Your task to perform on an android device: Add "razer blade" to the cart on ebay.com Image 0: 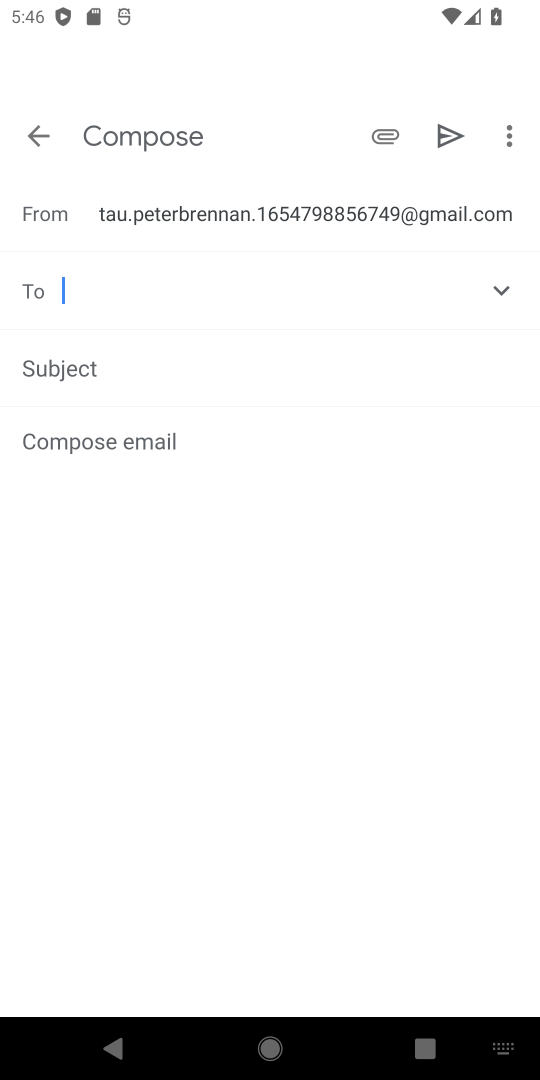
Step 0: press home button
Your task to perform on an android device: Add "razer blade" to the cart on ebay.com Image 1: 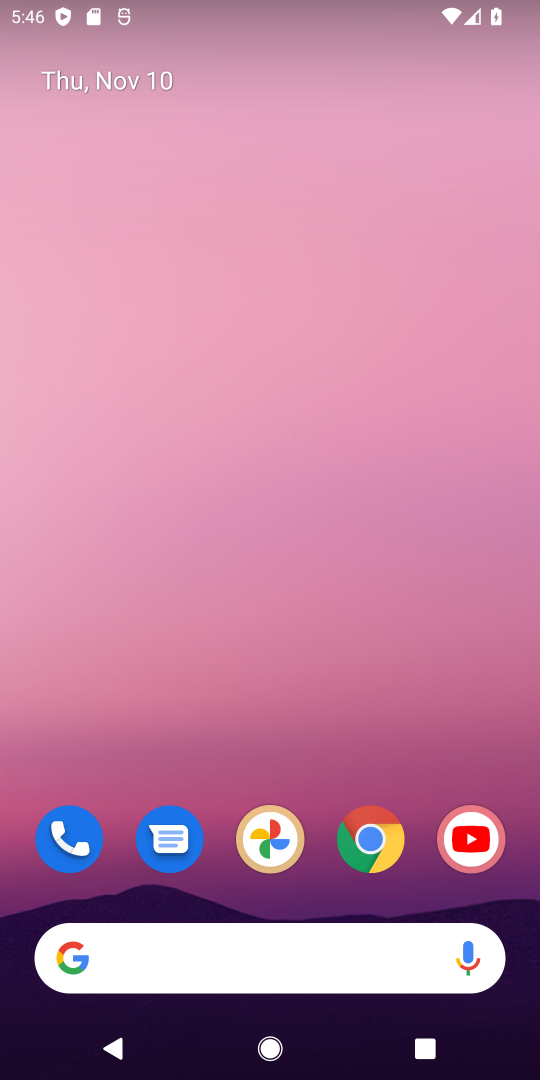
Step 1: click (371, 865)
Your task to perform on an android device: Add "razer blade" to the cart on ebay.com Image 2: 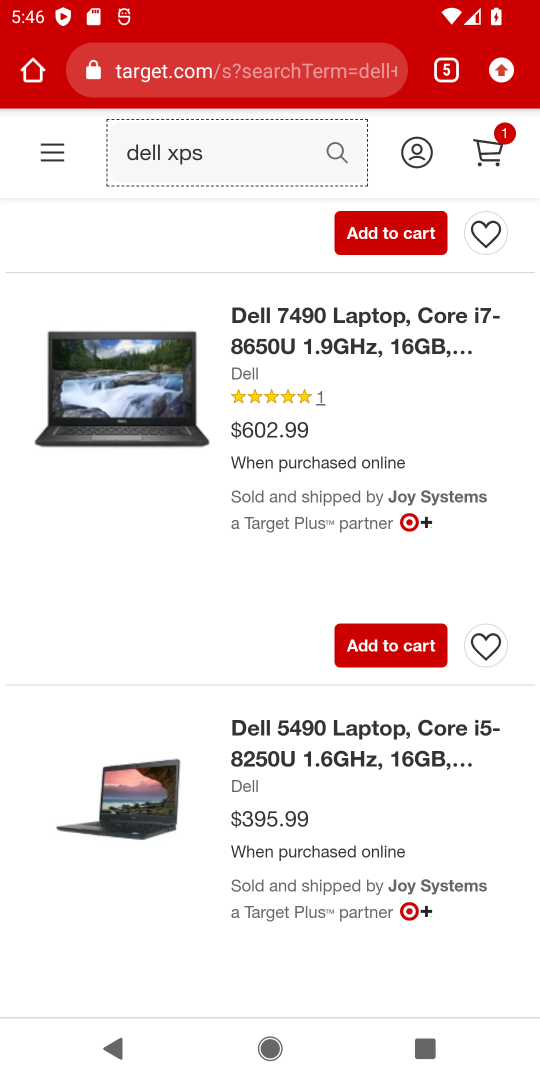
Step 2: click (453, 74)
Your task to perform on an android device: Add "razer blade" to the cart on ebay.com Image 3: 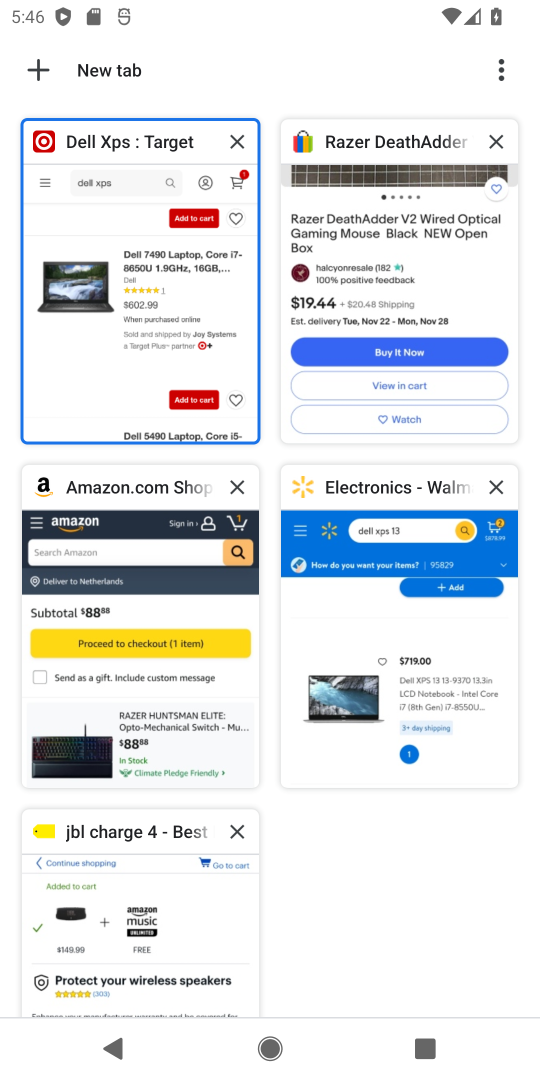
Step 3: click (377, 292)
Your task to perform on an android device: Add "razer blade" to the cart on ebay.com Image 4: 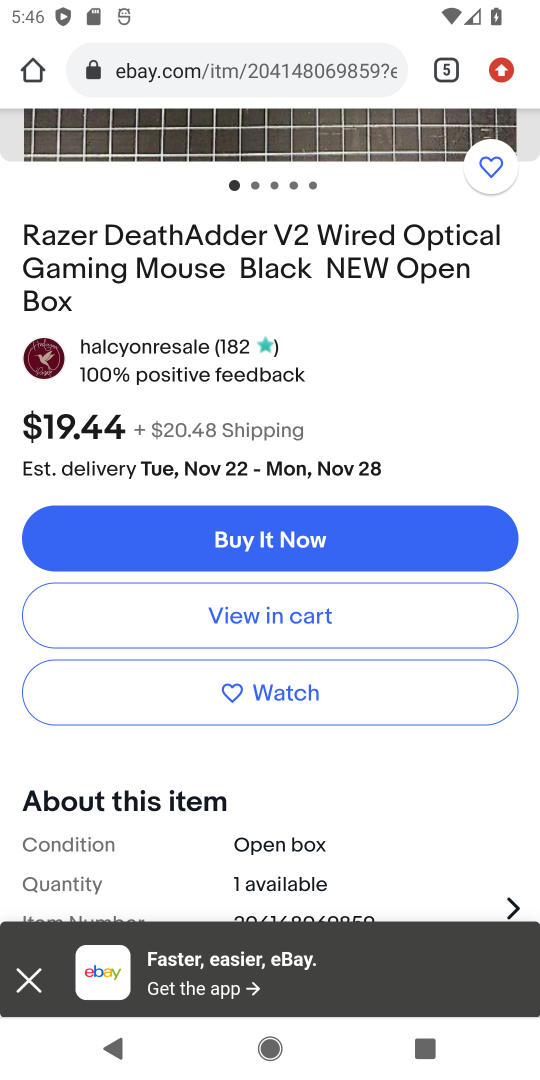
Step 4: drag from (376, 276) to (253, 883)
Your task to perform on an android device: Add "razer blade" to the cart on ebay.com Image 5: 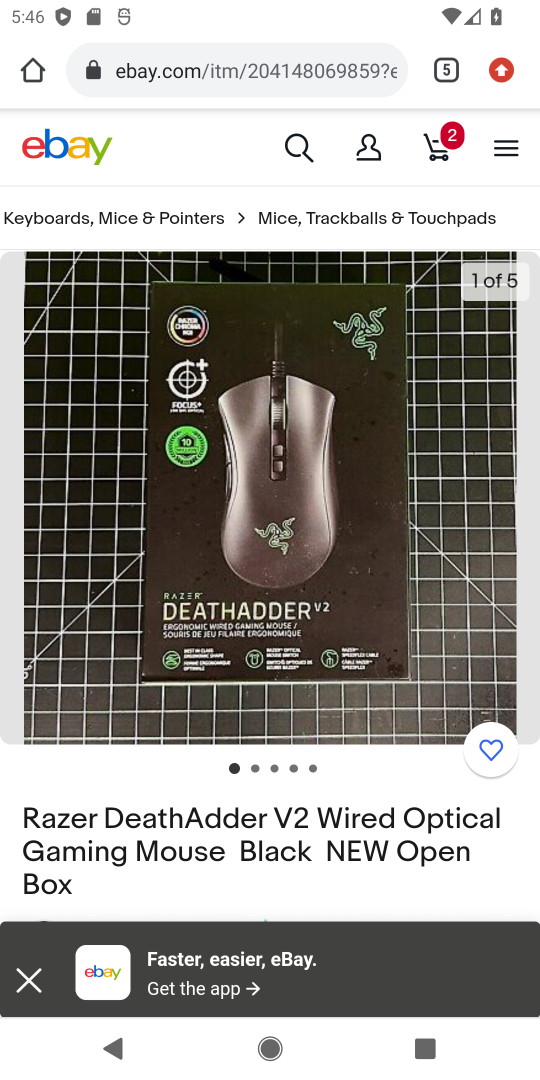
Step 5: click (297, 148)
Your task to perform on an android device: Add "razer blade" to the cart on ebay.com Image 6: 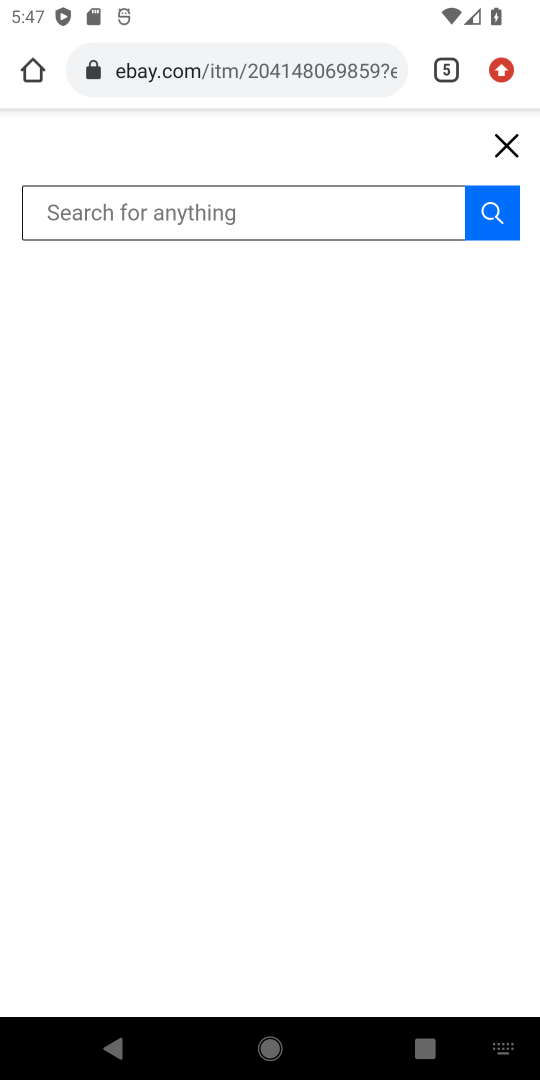
Step 6: type "razer blade"
Your task to perform on an android device: Add "razer blade" to the cart on ebay.com Image 7: 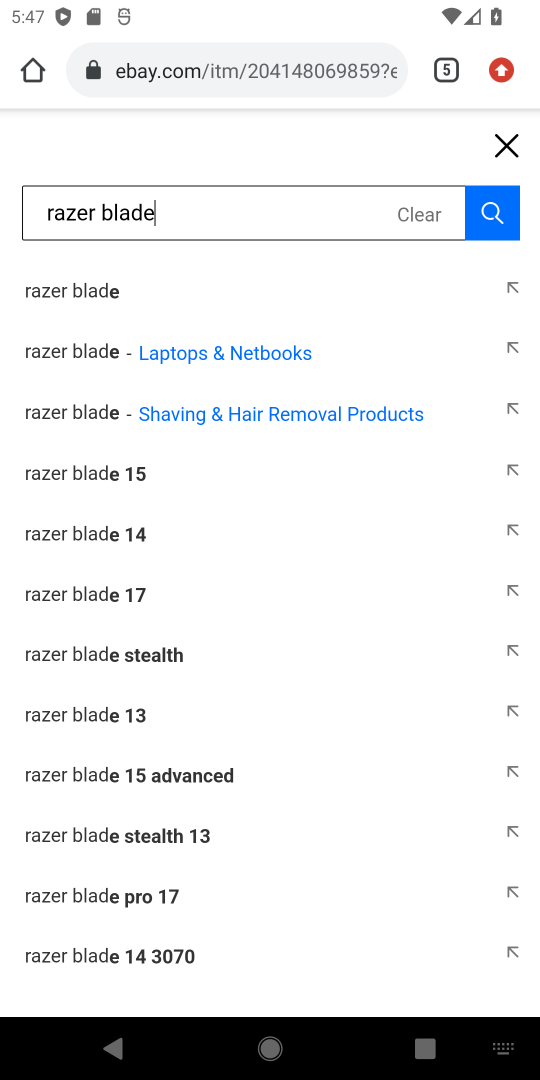
Step 7: click (88, 349)
Your task to perform on an android device: Add "razer blade" to the cart on ebay.com Image 8: 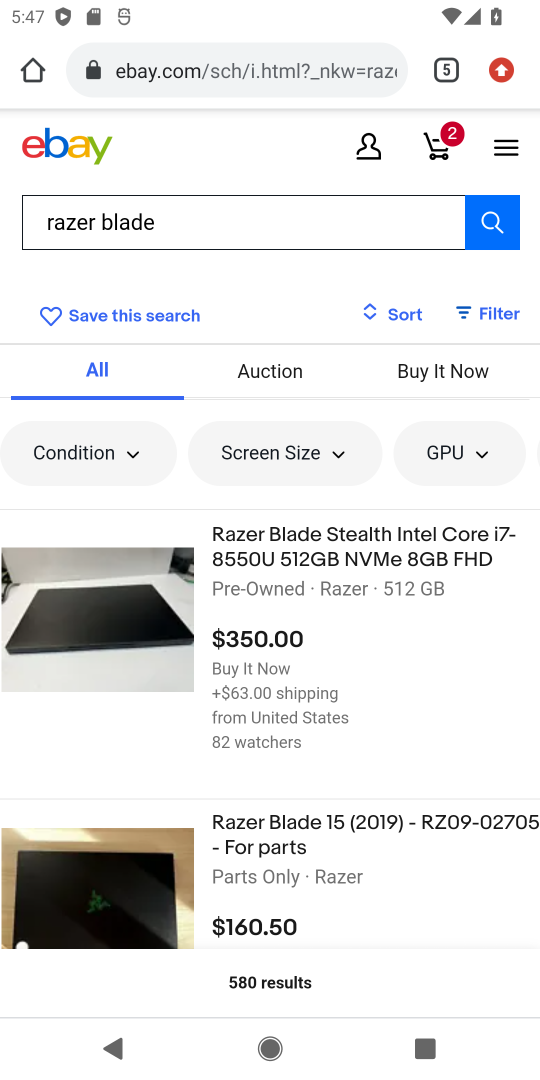
Step 8: click (222, 571)
Your task to perform on an android device: Add "razer blade" to the cart on ebay.com Image 9: 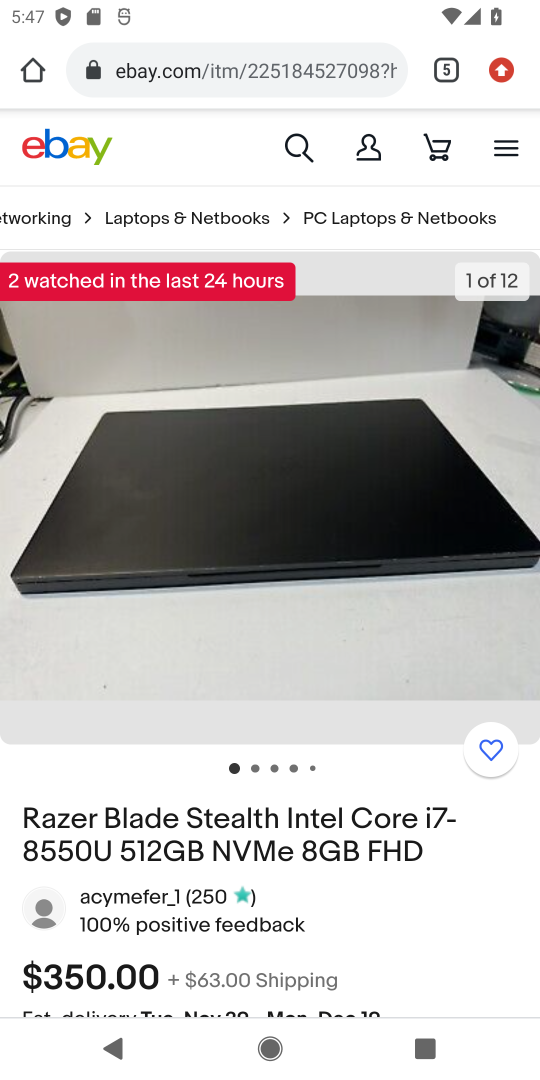
Step 9: drag from (219, 891) to (404, 338)
Your task to perform on an android device: Add "razer blade" to the cart on ebay.com Image 10: 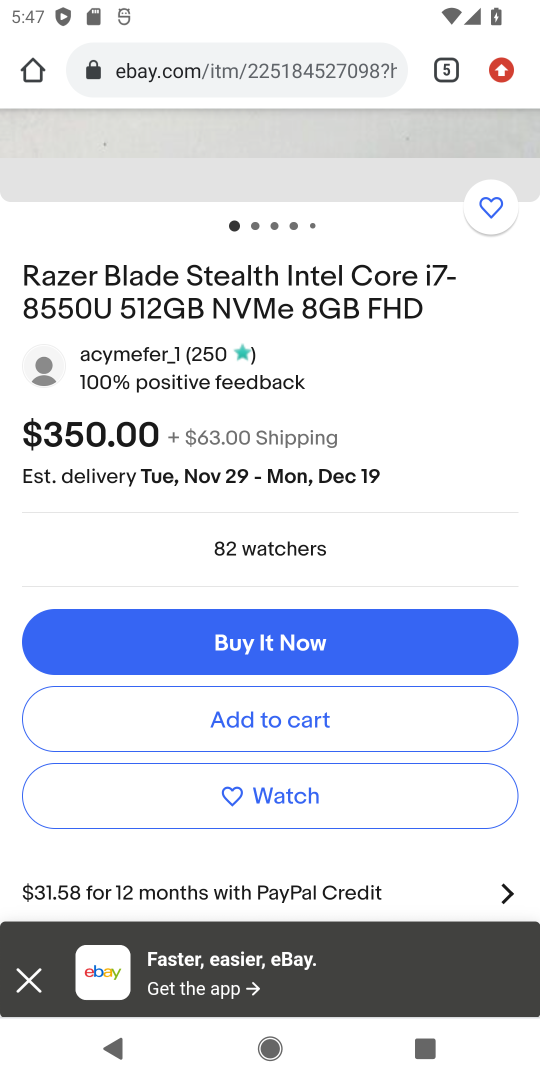
Step 10: click (219, 711)
Your task to perform on an android device: Add "razer blade" to the cart on ebay.com Image 11: 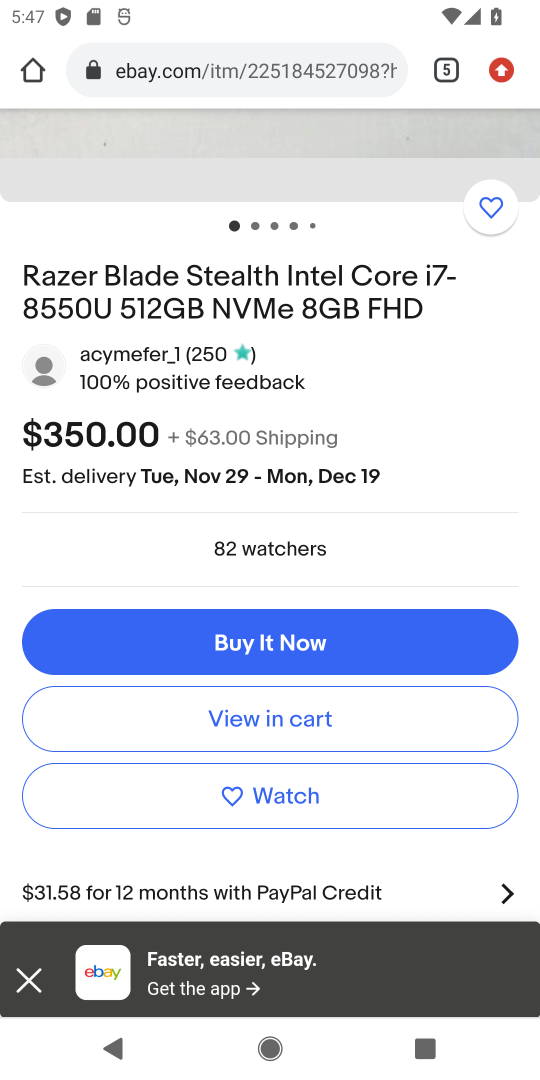
Step 11: task complete